Your task to perform on an android device: turn notification dots off Image 0: 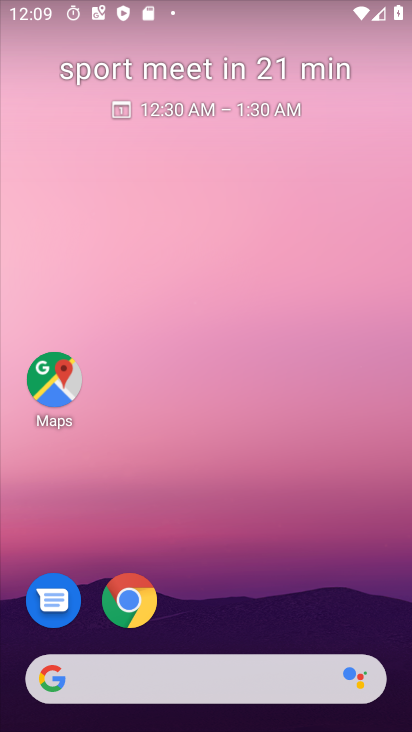
Step 0: drag from (214, 642) to (270, 16)
Your task to perform on an android device: turn notification dots off Image 1: 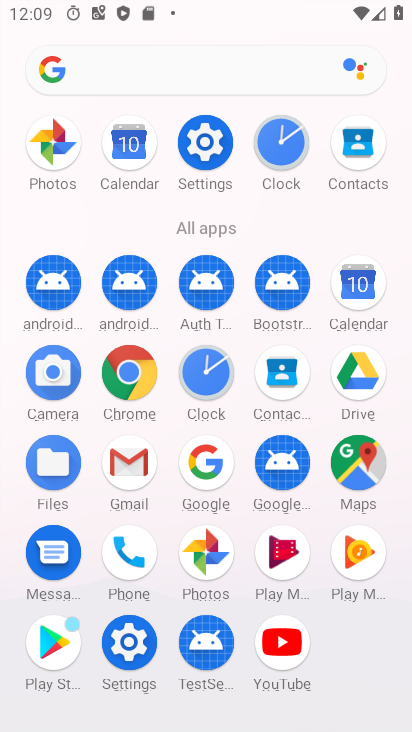
Step 1: click (195, 156)
Your task to perform on an android device: turn notification dots off Image 2: 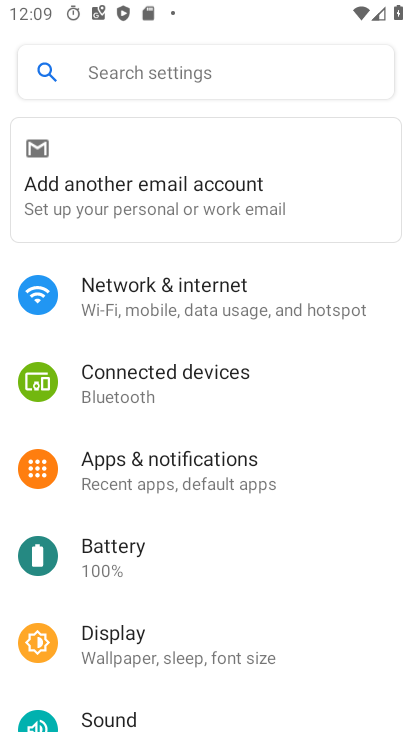
Step 2: drag from (146, 595) to (227, 177)
Your task to perform on an android device: turn notification dots off Image 3: 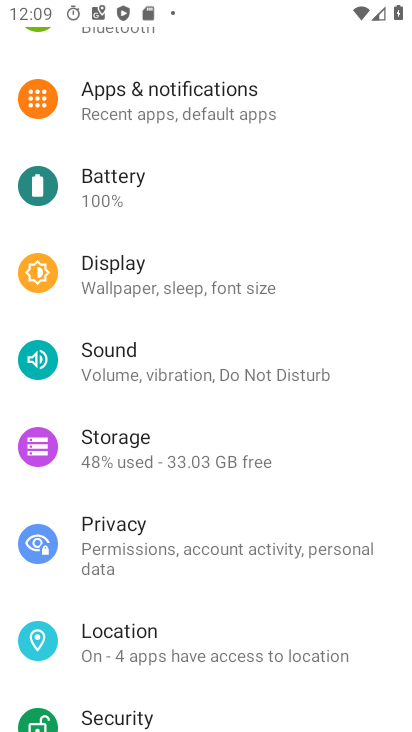
Step 3: click (239, 106)
Your task to perform on an android device: turn notification dots off Image 4: 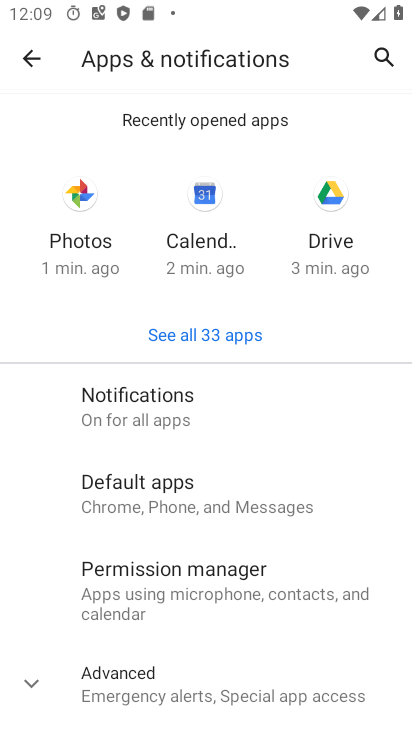
Step 4: drag from (178, 622) to (188, 351)
Your task to perform on an android device: turn notification dots off Image 5: 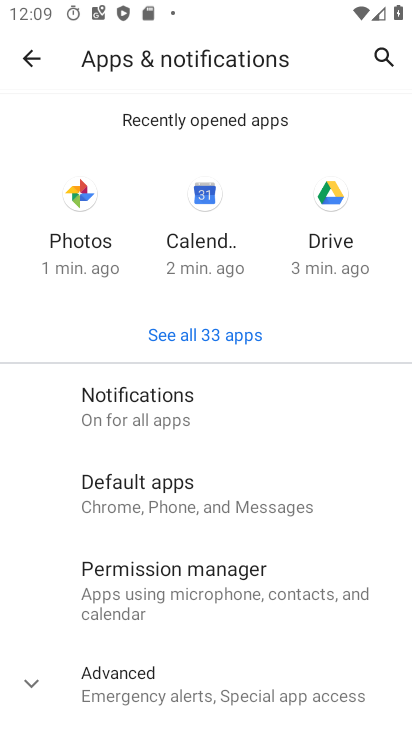
Step 5: click (172, 402)
Your task to perform on an android device: turn notification dots off Image 6: 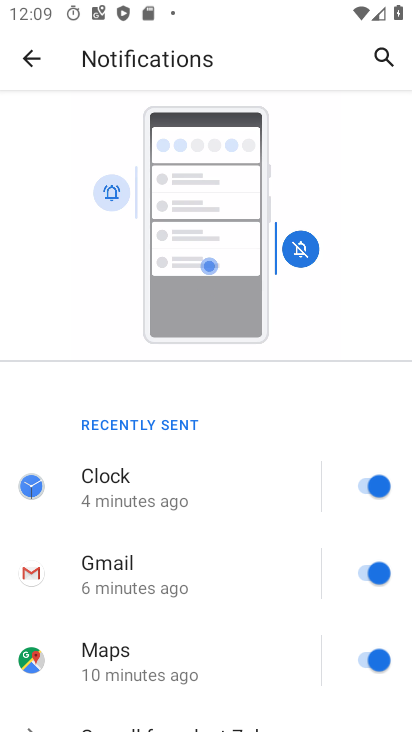
Step 6: drag from (182, 649) to (265, 177)
Your task to perform on an android device: turn notification dots off Image 7: 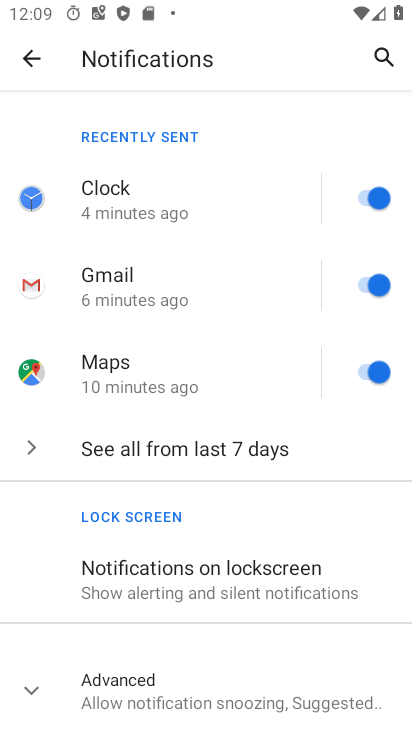
Step 7: click (163, 702)
Your task to perform on an android device: turn notification dots off Image 8: 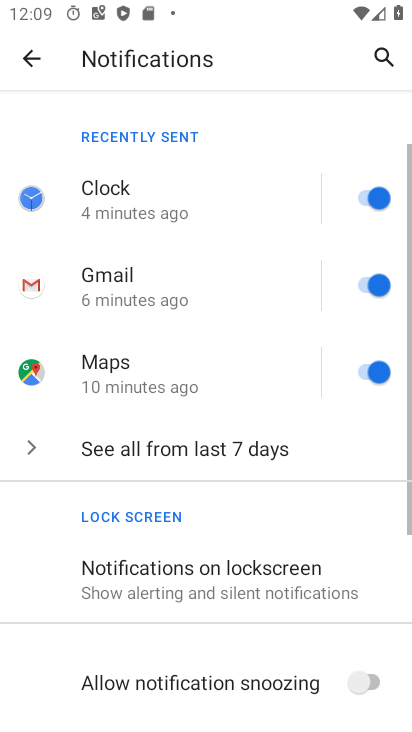
Step 8: drag from (219, 634) to (275, 164)
Your task to perform on an android device: turn notification dots off Image 9: 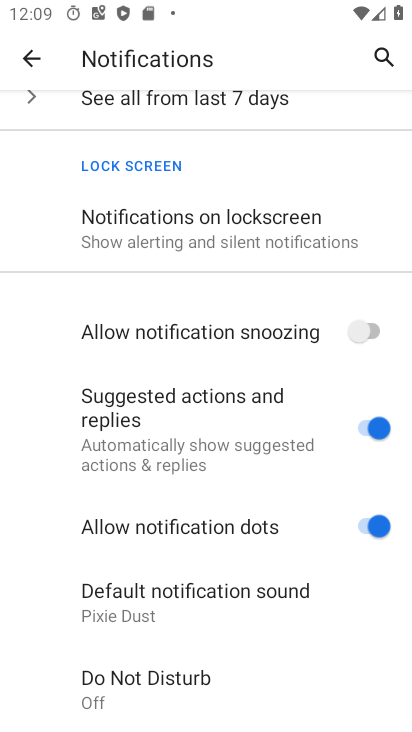
Step 9: click (369, 525)
Your task to perform on an android device: turn notification dots off Image 10: 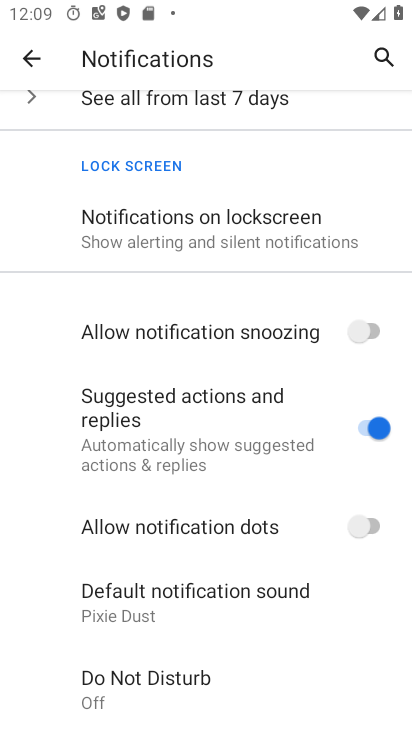
Step 10: task complete